Your task to perform on an android device: remove spam from my inbox in the gmail app Image 0: 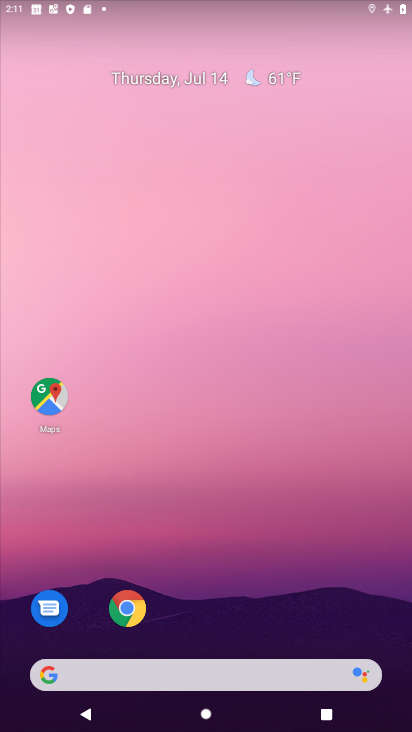
Step 0: drag from (223, 674) to (305, 262)
Your task to perform on an android device: remove spam from my inbox in the gmail app Image 1: 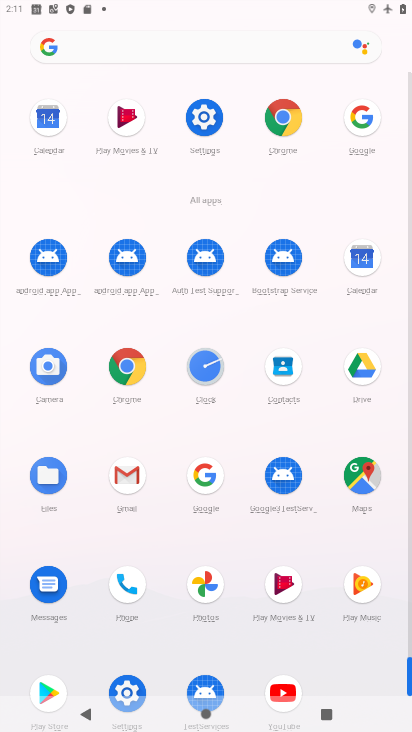
Step 1: click (127, 474)
Your task to perform on an android device: remove spam from my inbox in the gmail app Image 2: 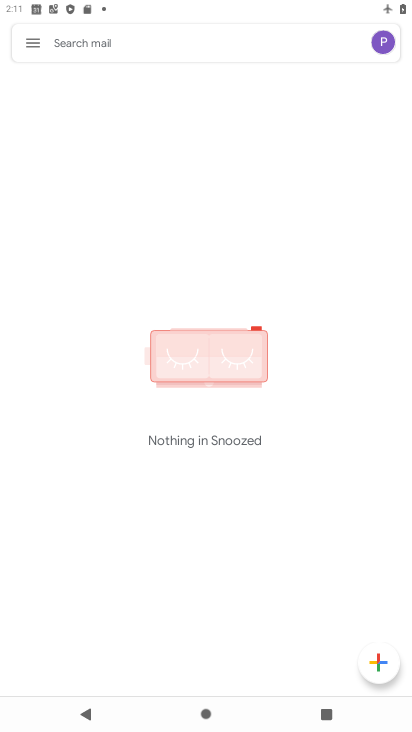
Step 2: click (33, 40)
Your task to perform on an android device: remove spam from my inbox in the gmail app Image 3: 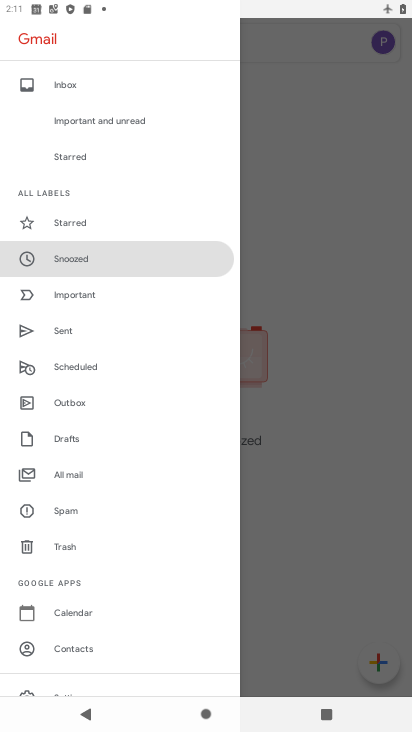
Step 3: click (68, 510)
Your task to perform on an android device: remove spam from my inbox in the gmail app Image 4: 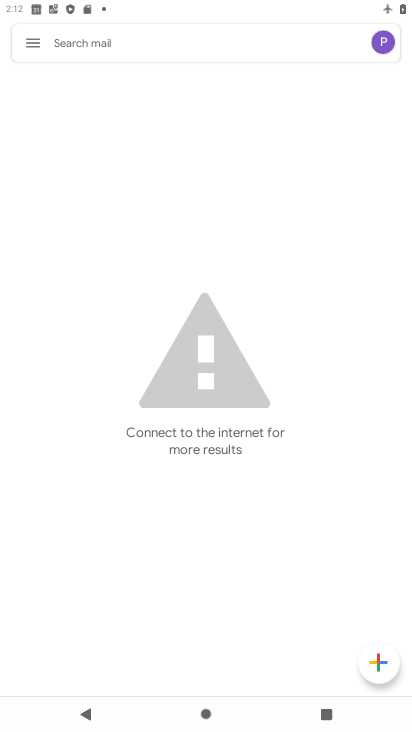
Step 4: task complete